Your task to perform on an android device: What's the news this afternoon? Image 0: 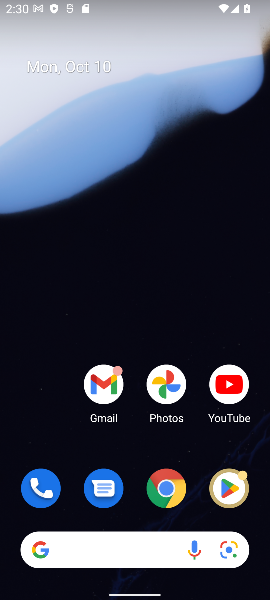
Step 0: click (93, 555)
Your task to perform on an android device: What's the news this afternoon? Image 1: 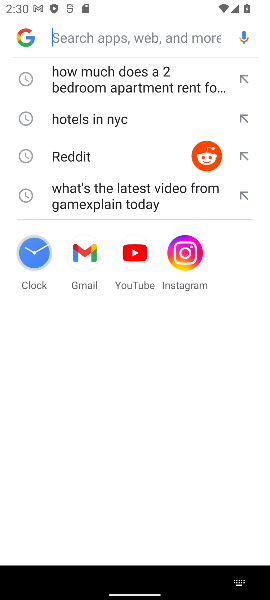
Step 1: click (112, 33)
Your task to perform on an android device: What's the news this afternoon? Image 2: 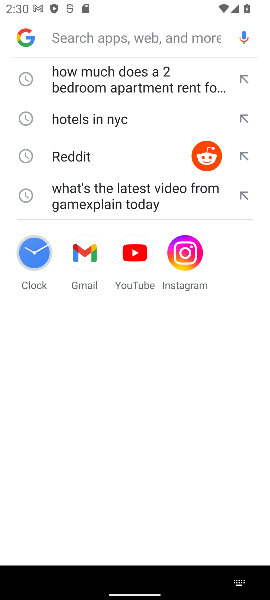
Step 2: type "What's the news this afternoon"
Your task to perform on an android device: What's the news this afternoon? Image 3: 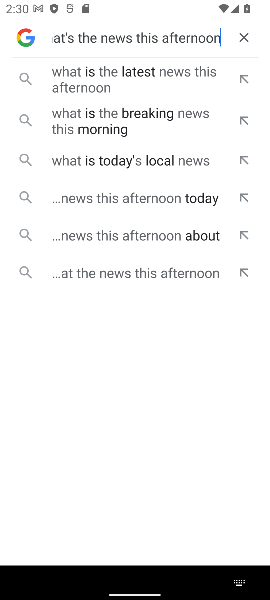
Step 3: click (156, 72)
Your task to perform on an android device: What's the news this afternoon? Image 4: 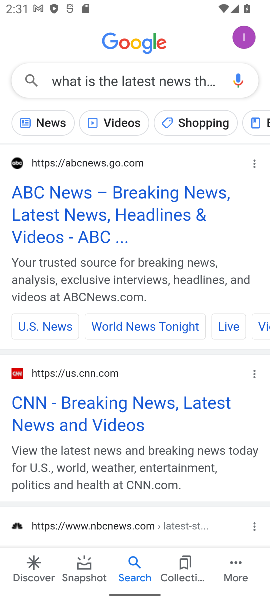
Step 4: task complete